Your task to perform on an android device: Search for sushi restaurants on Maps Image 0: 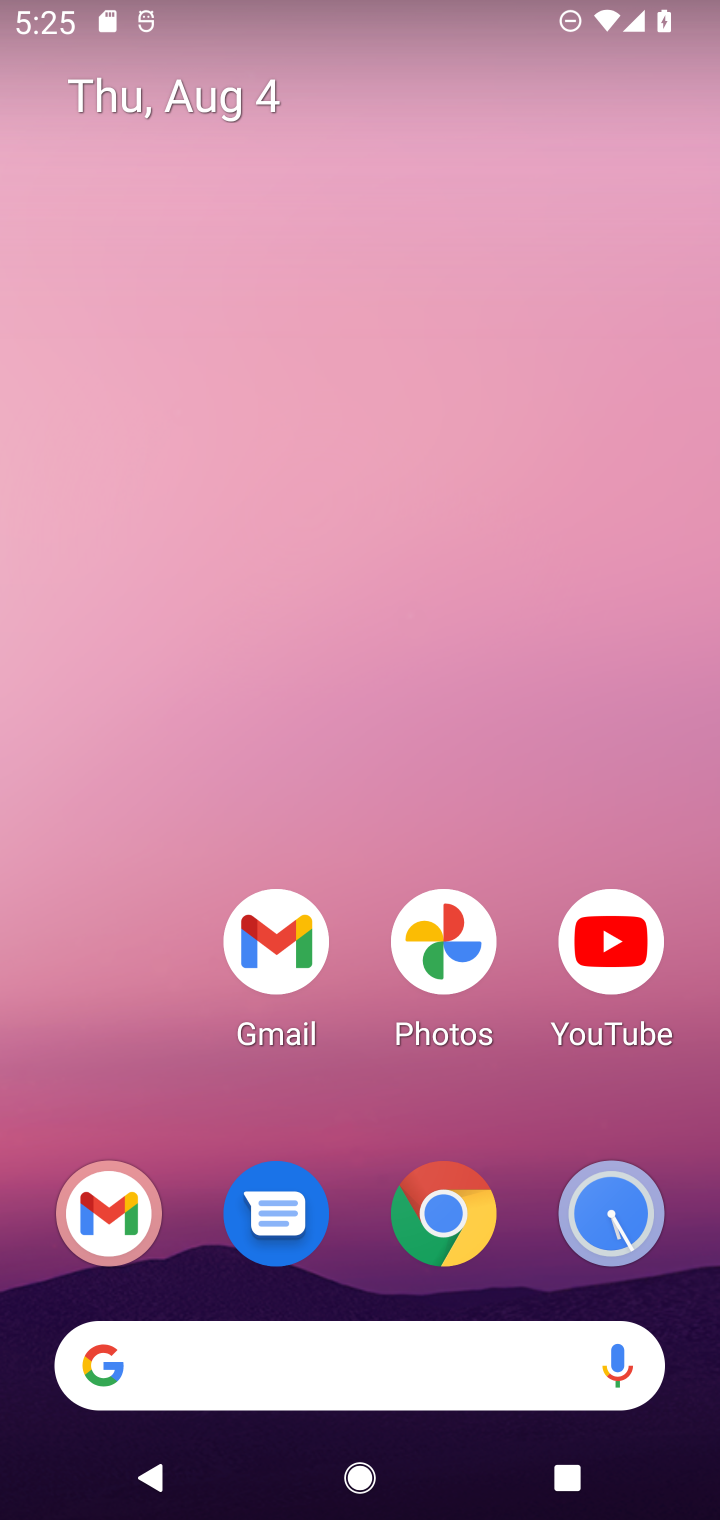
Step 0: press home button
Your task to perform on an android device: Search for sushi restaurants on Maps Image 1: 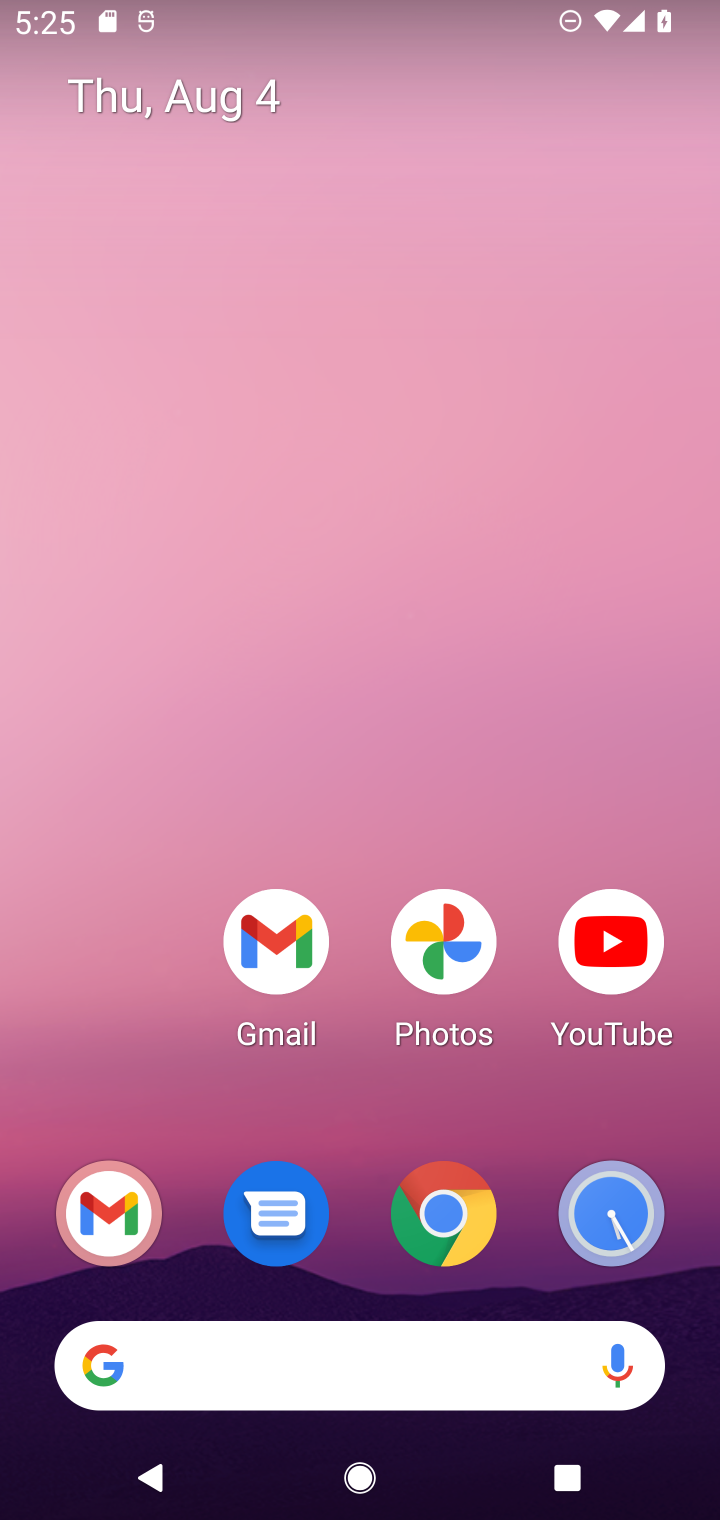
Step 1: drag from (164, 982) to (176, 363)
Your task to perform on an android device: Search for sushi restaurants on Maps Image 2: 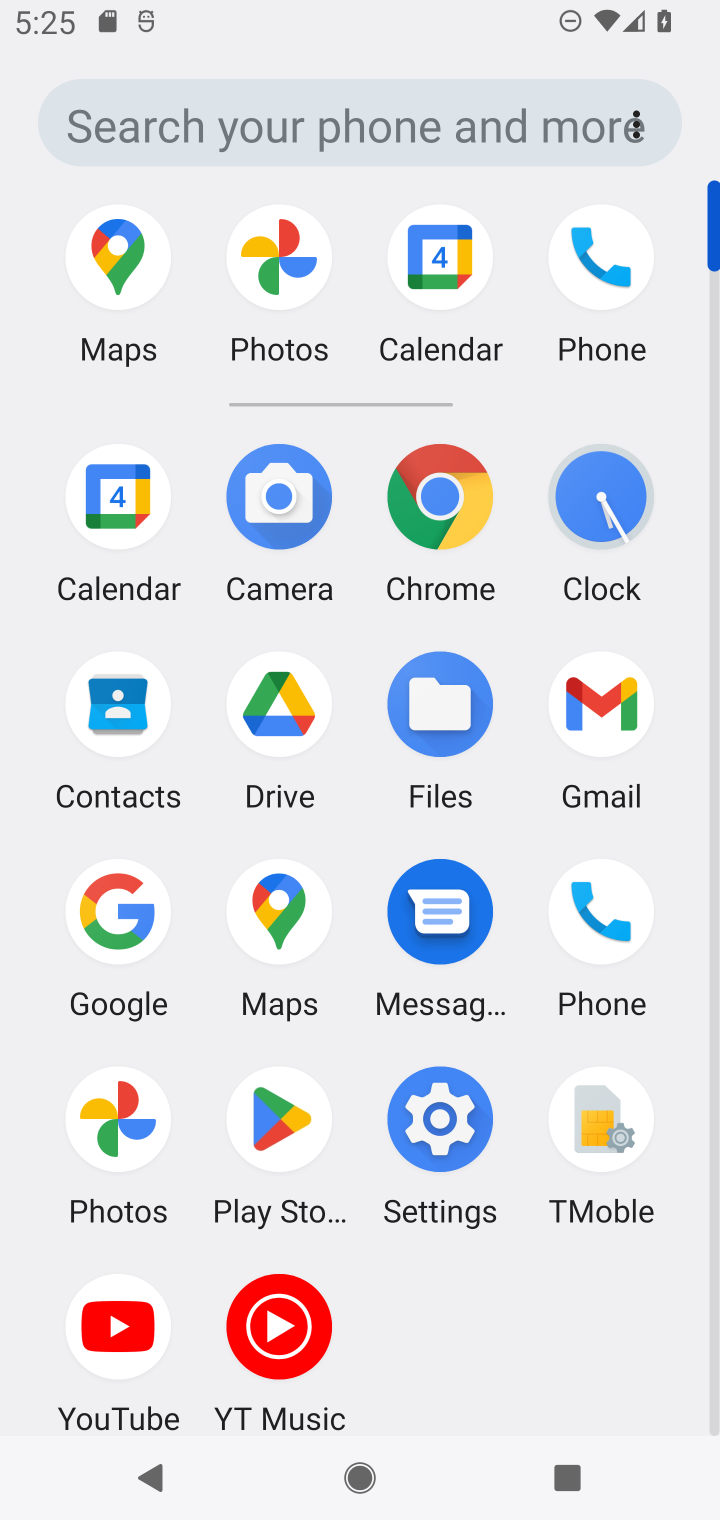
Step 2: click (268, 933)
Your task to perform on an android device: Search for sushi restaurants on Maps Image 3: 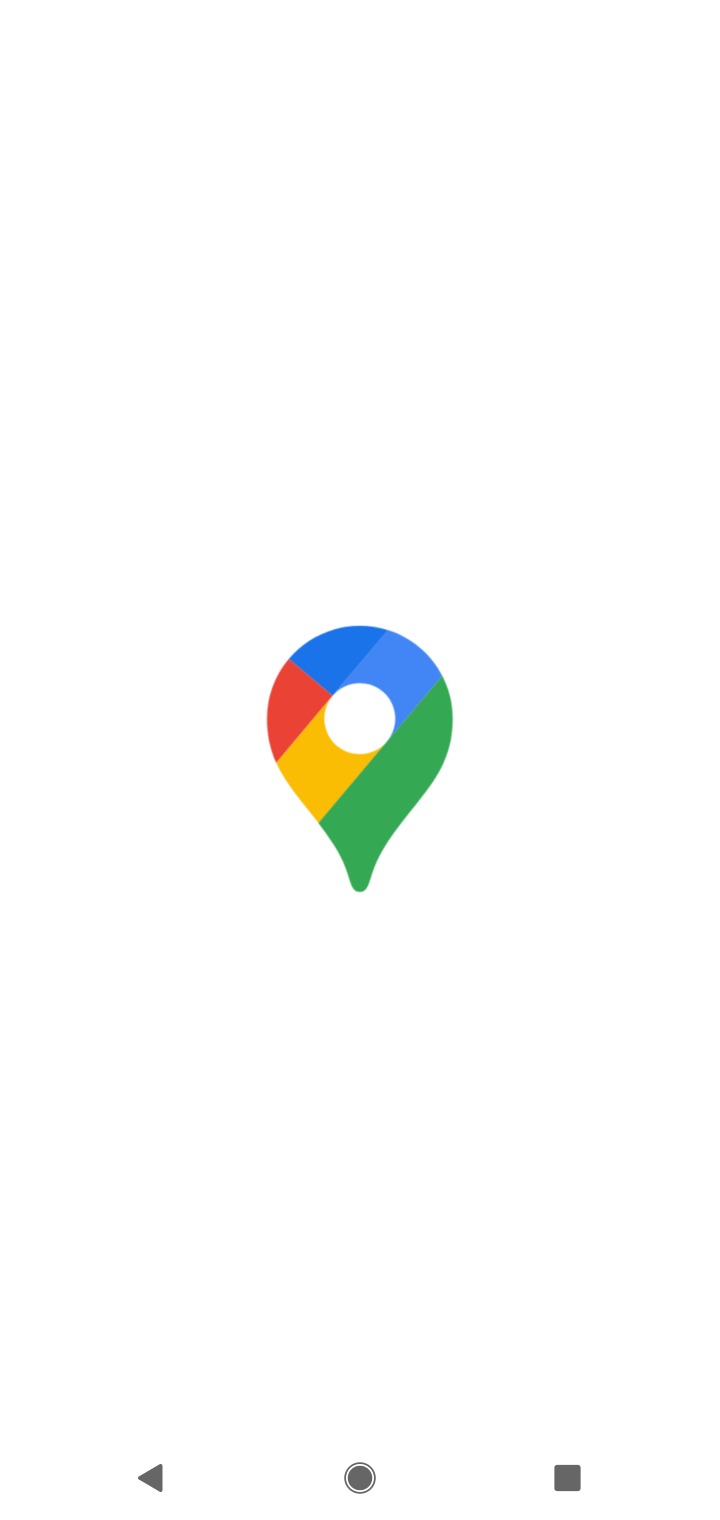
Step 3: task complete